Your task to perform on an android device: see tabs open on other devices in the chrome app Image 0: 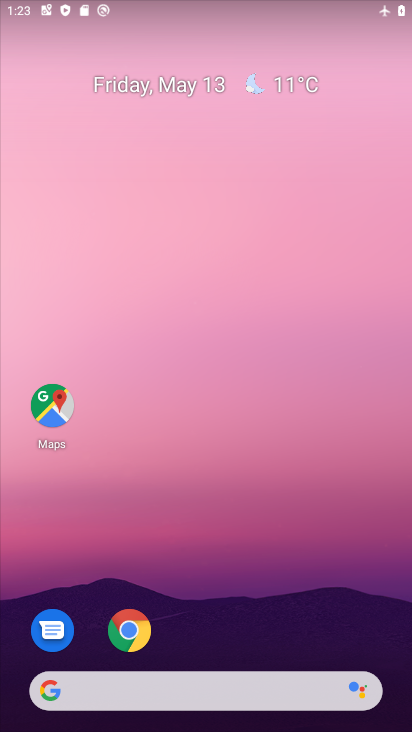
Step 0: click (137, 630)
Your task to perform on an android device: see tabs open on other devices in the chrome app Image 1: 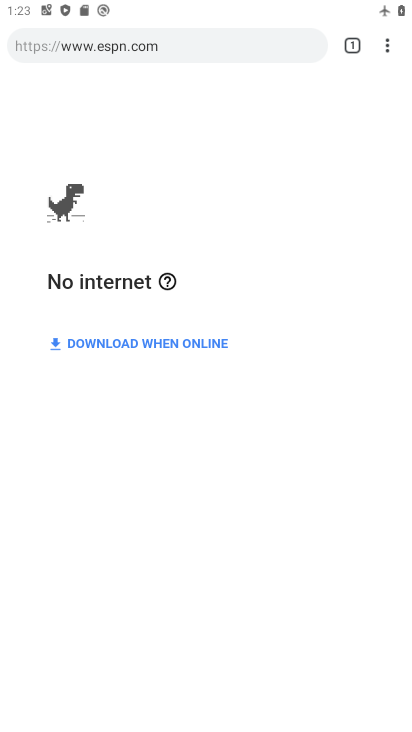
Step 1: drag from (387, 42) to (239, 205)
Your task to perform on an android device: see tabs open on other devices in the chrome app Image 2: 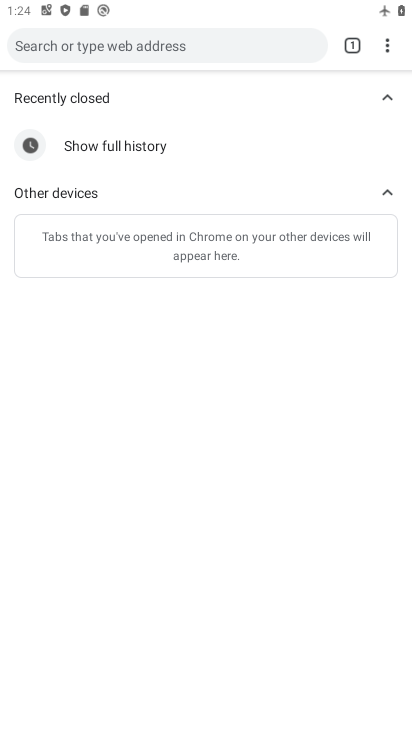
Step 2: click (212, 260)
Your task to perform on an android device: see tabs open on other devices in the chrome app Image 3: 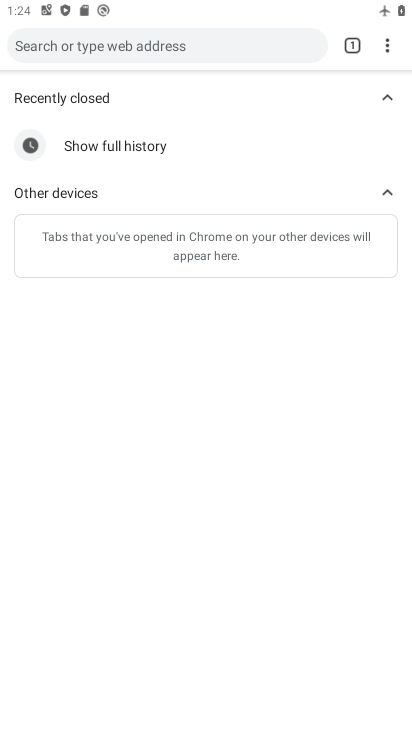
Step 3: task complete